Your task to perform on an android device: Open Chrome and go to settings Image 0: 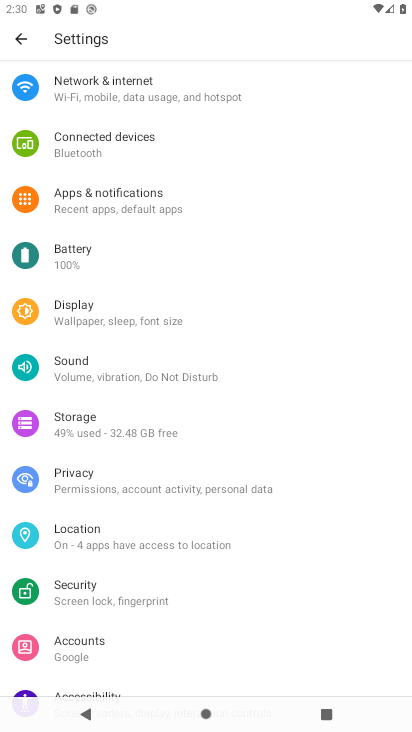
Step 0: press home button
Your task to perform on an android device: Open Chrome and go to settings Image 1: 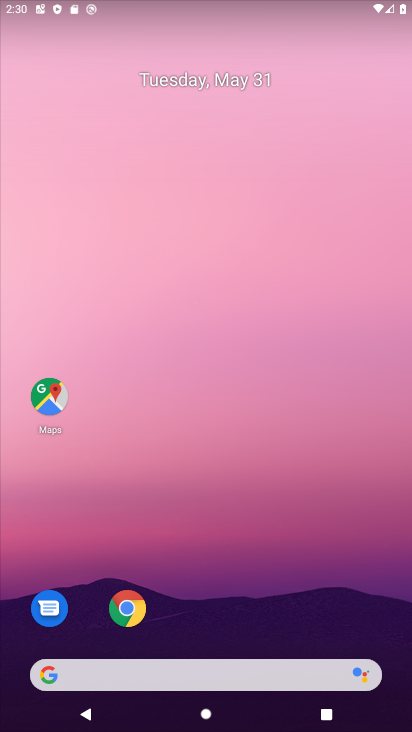
Step 1: click (123, 592)
Your task to perform on an android device: Open Chrome and go to settings Image 2: 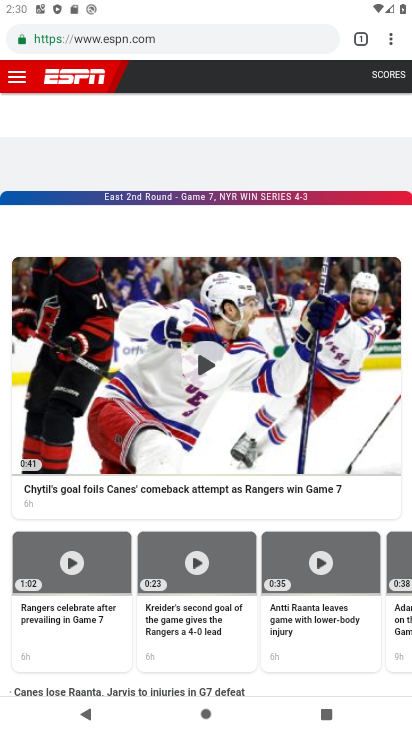
Step 2: click (391, 43)
Your task to perform on an android device: Open Chrome and go to settings Image 3: 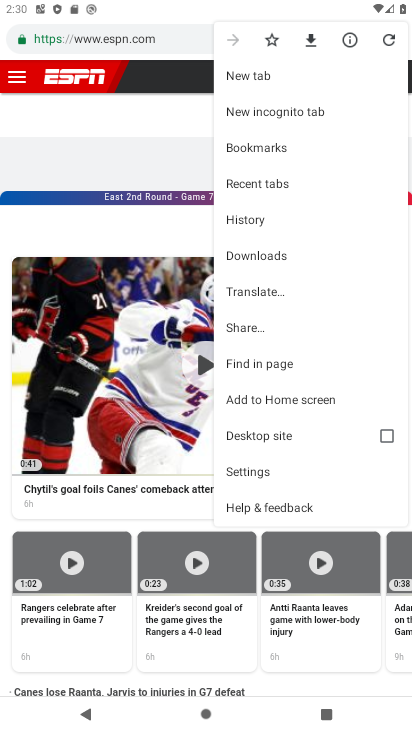
Step 3: click (259, 467)
Your task to perform on an android device: Open Chrome and go to settings Image 4: 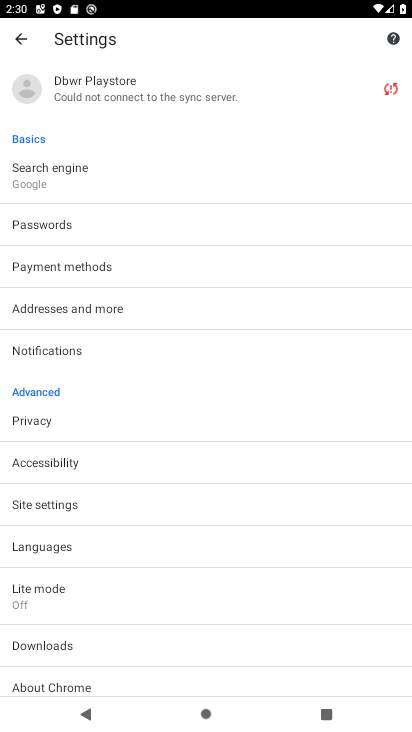
Step 4: task complete